Your task to perform on an android device: turn off picture-in-picture Image 0: 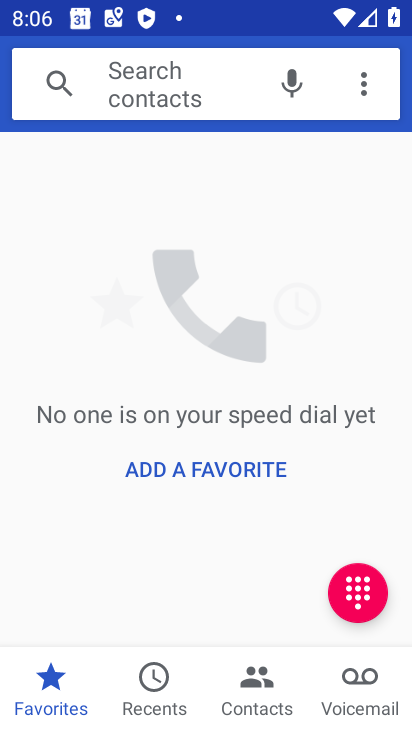
Step 0: press back button
Your task to perform on an android device: turn off picture-in-picture Image 1: 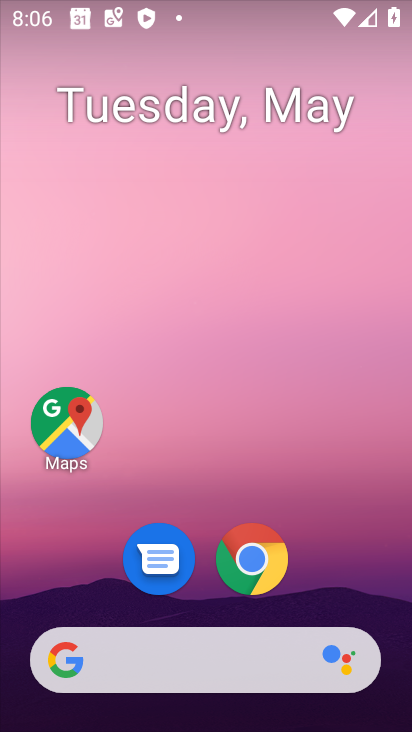
Step 1: drag from (147, 531) to (279, 24)
Your task to perform on an android device: turn off picture-in-picture Image 2: 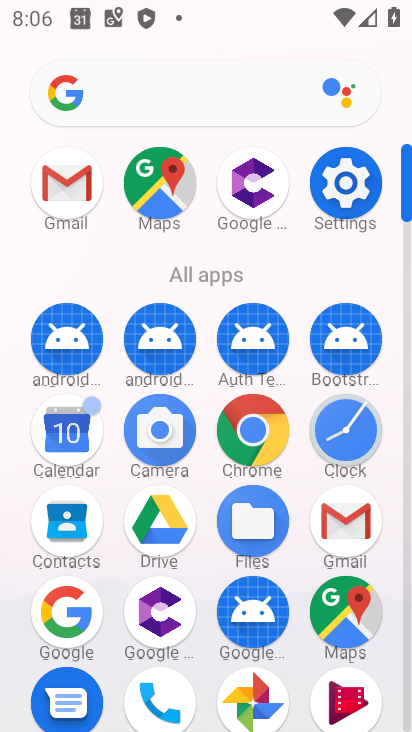
Step 2: click (357, 186)
Your task to perform on an android device: turn off picture-in-picture Image 3: 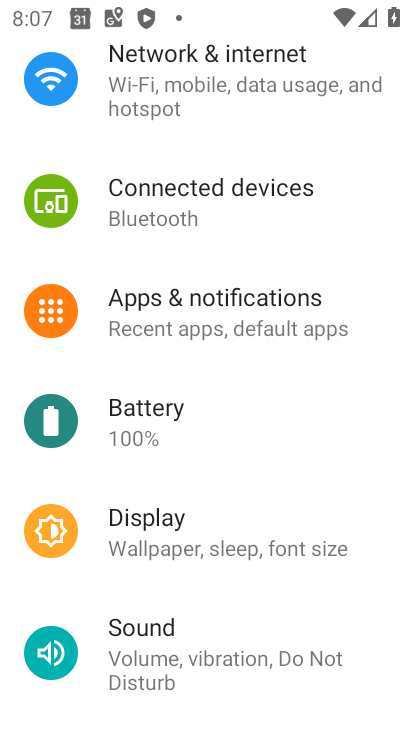
Step 3: drag from (257, 140) to (224, 600)
Your task to perform on an android device: turn off picture-in-picture Image 4: 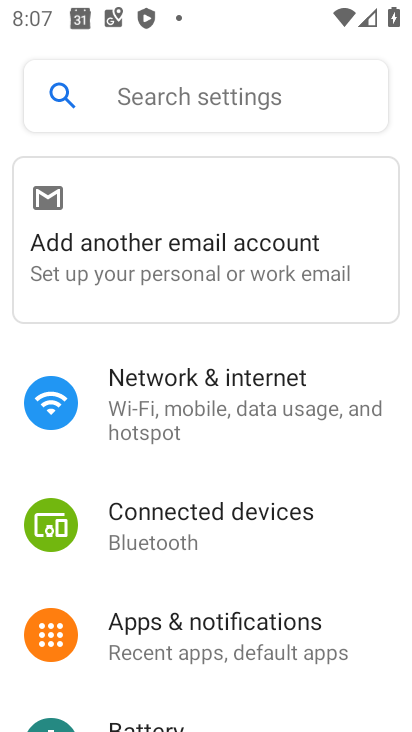
Step 4: click (229, 638)
Your task to perform on an android device: turn off picture-in-picture Image 5: 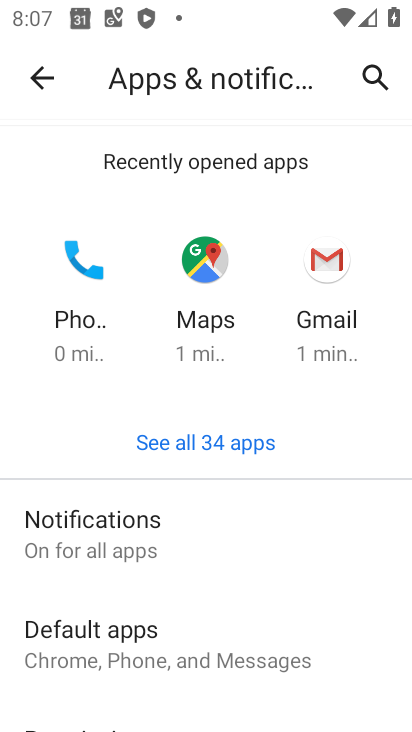
Step 5: drag from (238, 607) to (325, 16)
Your task to perform on an android device: turn off picture-in-picture Image 6: 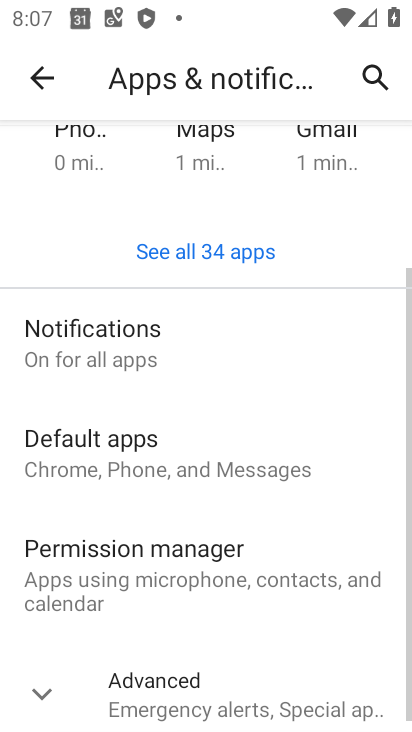
Step 6: click (171, 666)
Your task to perform on an android device: turn off picture-in-picture Image 7: 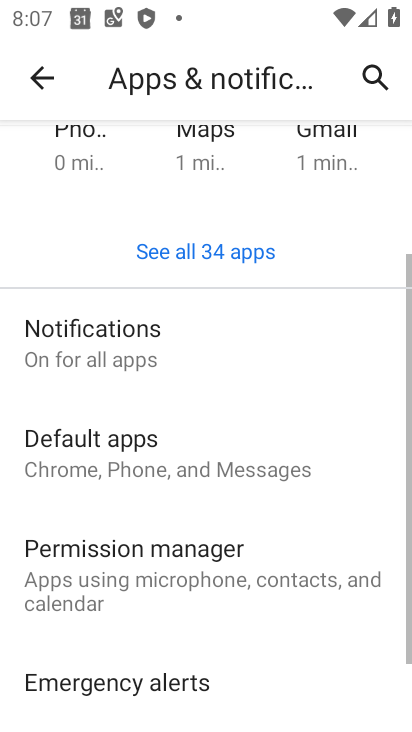
Step 7: drag from (181, 675) to (277, 71)
Your task to perform on an android device: turn off picture-in-picture Image 8: 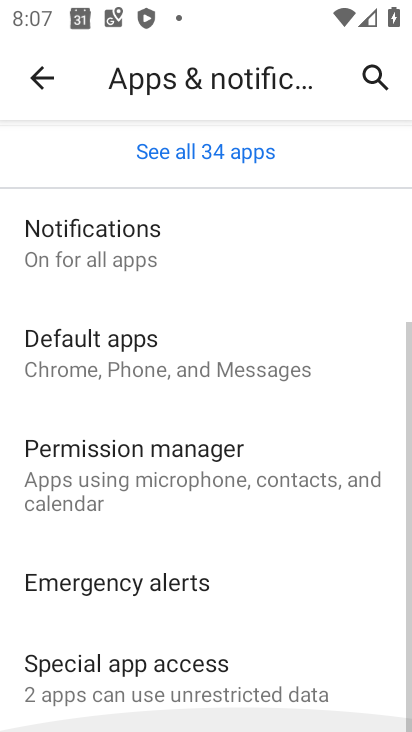
Step 8: click (77, 667)
Your task to perform on an android device: turn off picture-in-picture Image 9: 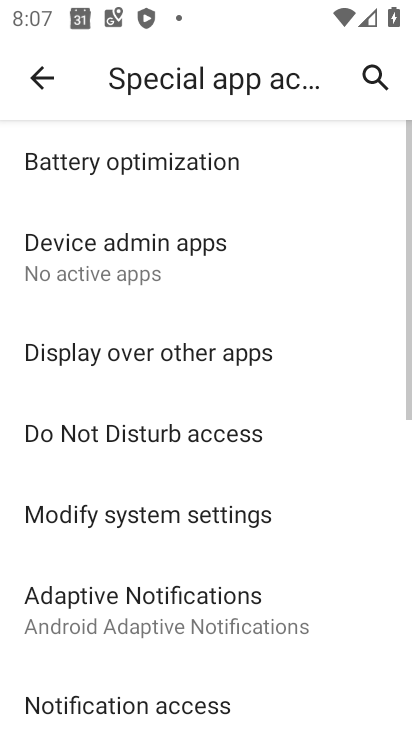
Step 9: drag from (124, 593) to (177, 426)
Your task to perform on an android device: turn off picture-in-picture Image 10: 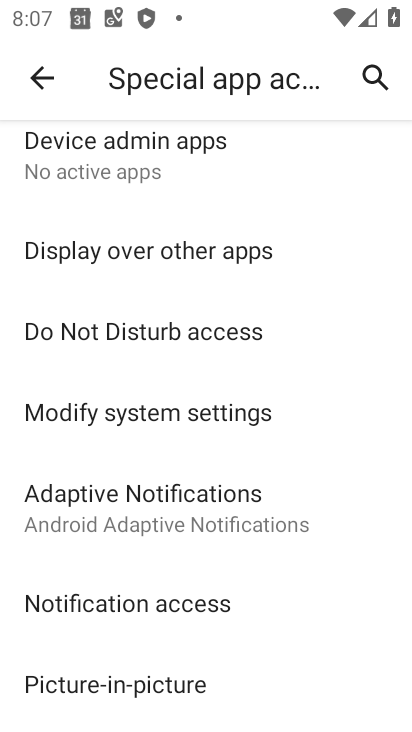
Step 10: click (126, 672)
Your task to perform on an android device: turn off picture-in-picture Image 11: 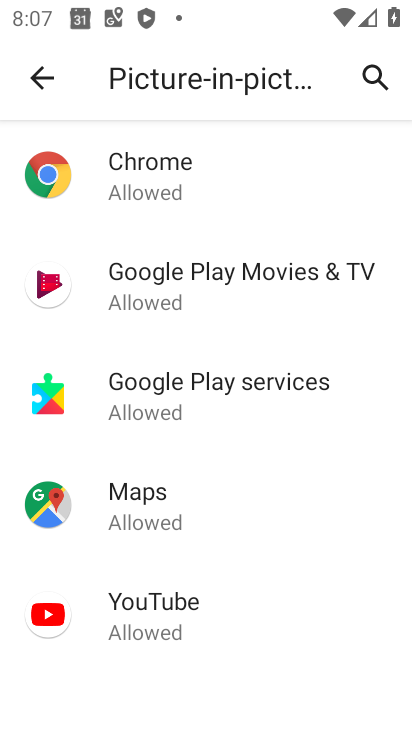
Step 11: click (223, 187)
Your task to perform on an android device: turn off picture-in-picture Image 12: 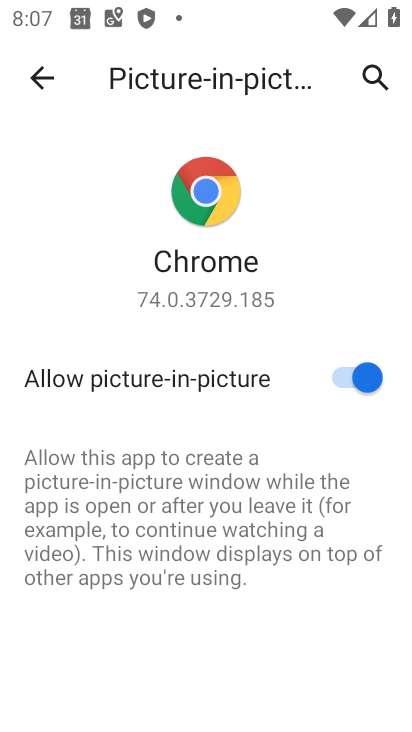
Step 12: click (354, 370)
Your task to perform on an android device: turn off picture-in-picture Image 13: 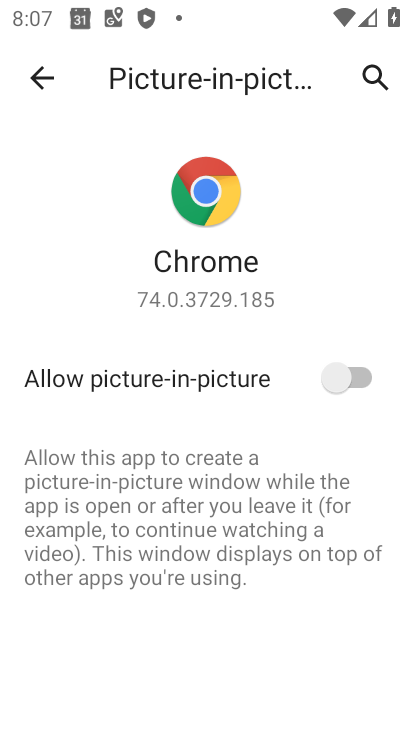
Step 13: task complete